Your task to perform on an android device: open a new tab in the chrome app Image 0: 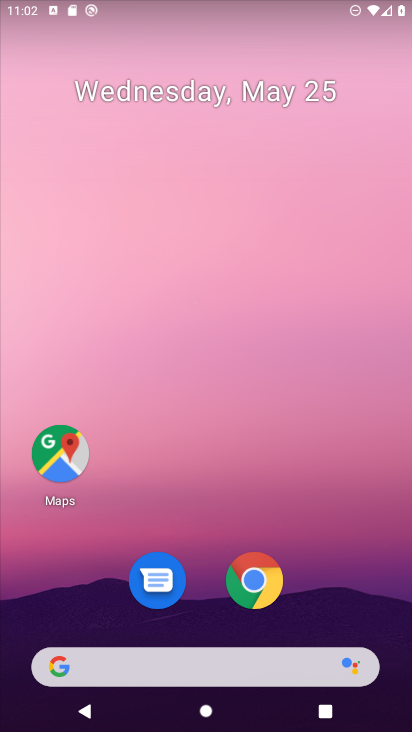
Step 0: press home button
Your task to perform on an android device: open a new tab in the chrome app Image 1: 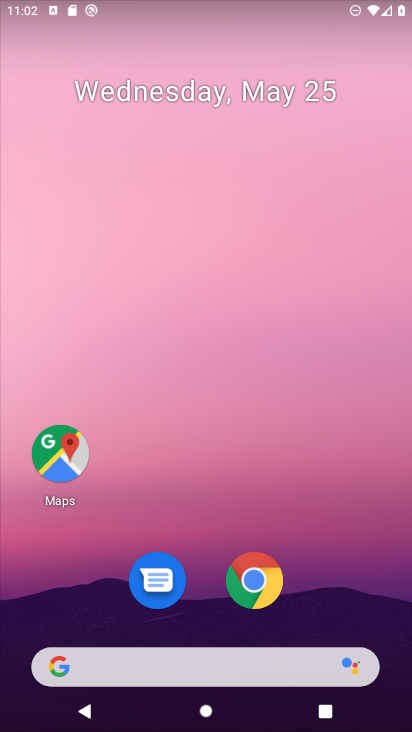
Step 1: click (256, 582)
Your task to perform on an android device: open a new tab in the chrome app Image 2: 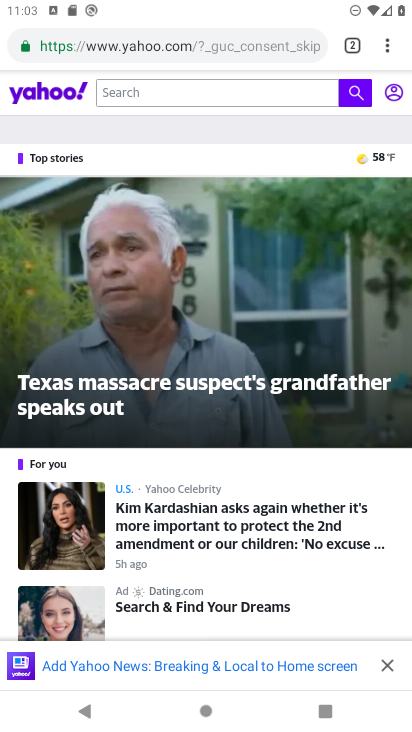
Step 2: task complete